Your task to perform on an android device: toggle wifi Image 0: 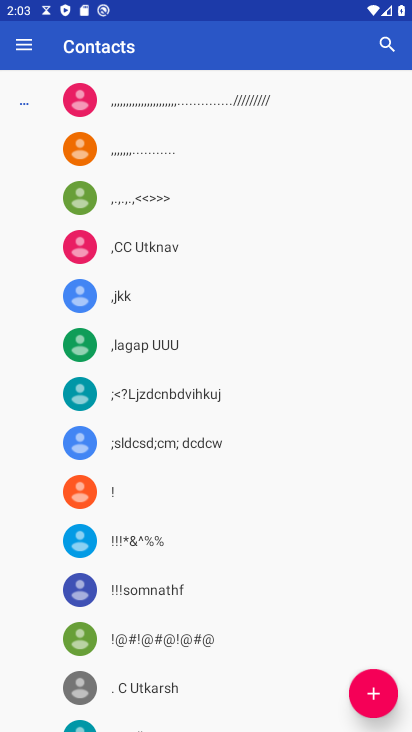
Step 0: press home button
Your task to perform on an android device: toggle wifi Image 1: 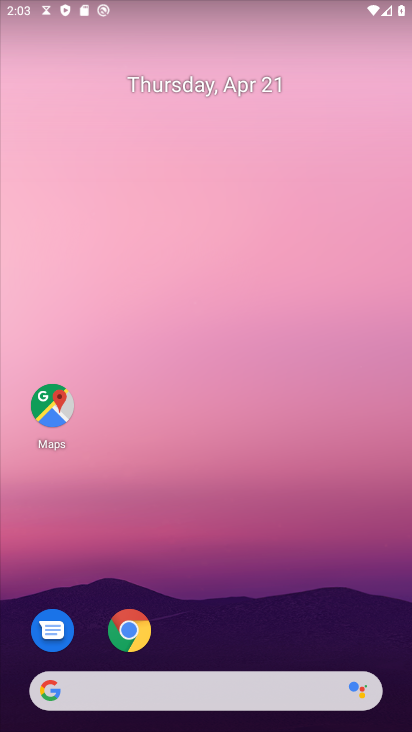
Step 1: drag from (242, 622) to (262, 9)
Your task to perform on an android device: toggle wifi Image 2: 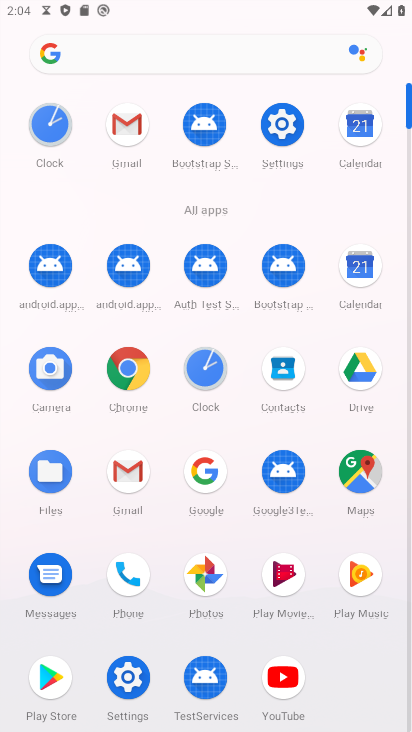
Step 2: click (285, 140)
Your task to perform on an android device: toggle wifi Image 3: 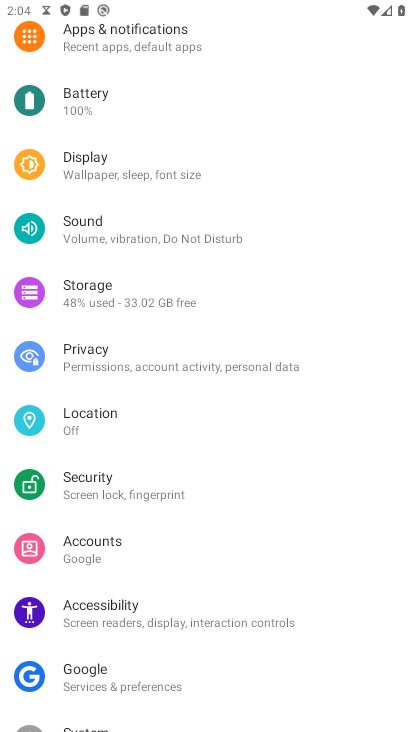
Step 3: drag from (292, 147) to (286, 473)
Your task to perform on an android device: toggle wifi Image 4: 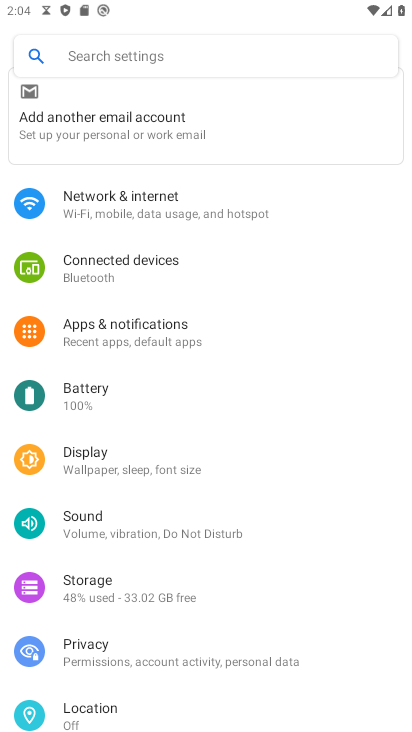
Step 4: click (160, 215)
Your task to perform on an android device: toggle wifi Image 5: 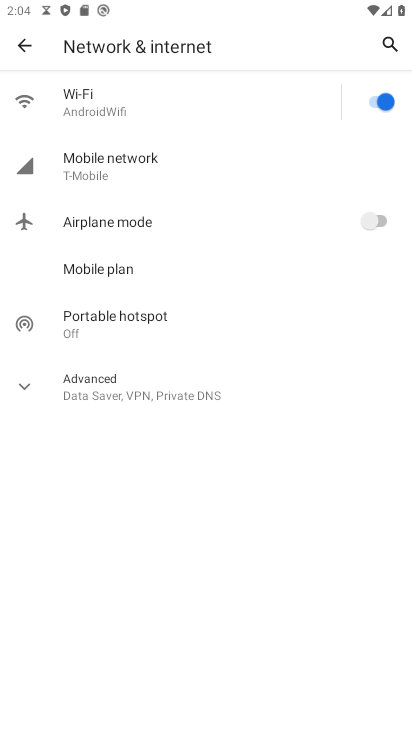
Step 5: click (377, 108)
Your task to perform on an android device: toggle wifi Image 6: 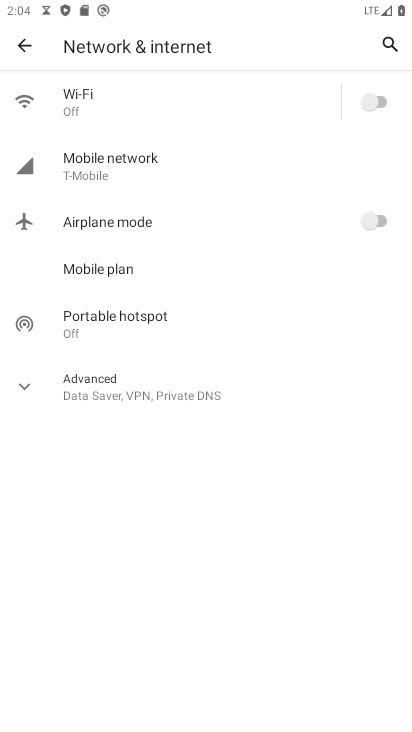
Step 6: task complete